Your task to perform on an android device: visit the assistant section in the google photos Image 0: 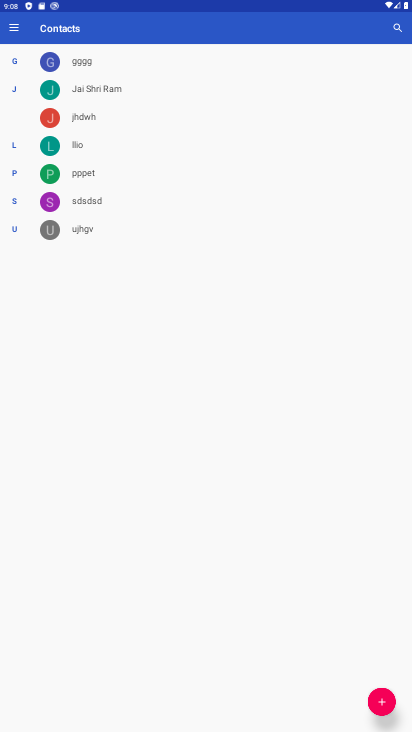
Step 0: press home button
Your task to perform on an android device: visit the assistant section in the google photos Image 1: 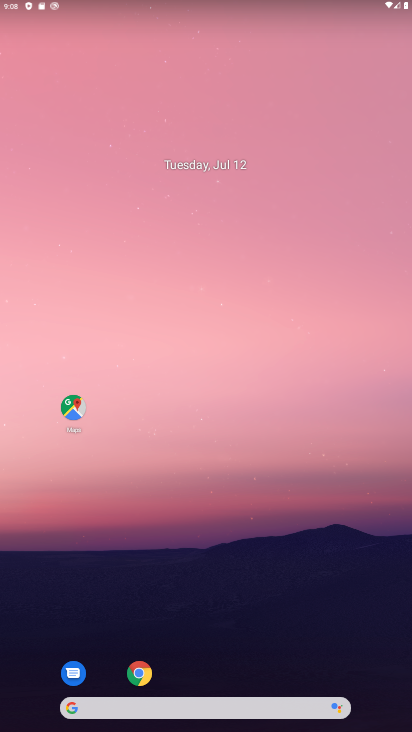
Step 1: drag from (161, 501) to (159, 170)
Your task to perform on an android device: visit the assistant section in the google photos Image 2: 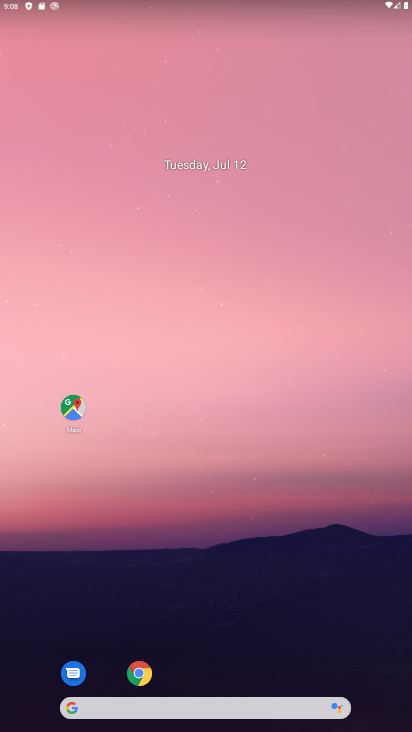
Step 2: drag from (193, 478) to (247, 38)
Your task to perform on an android device: visit the assistant section in the google photos Image 3: 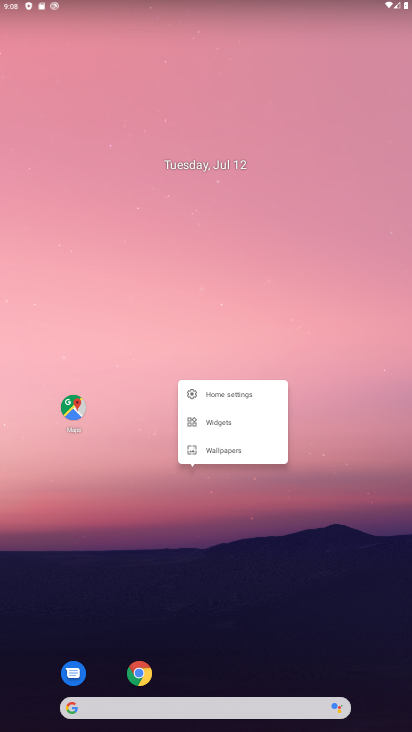
Step 3: click (187, 611)
Your task to perform on an android device: visit the assistant section in the google photos Image 4: 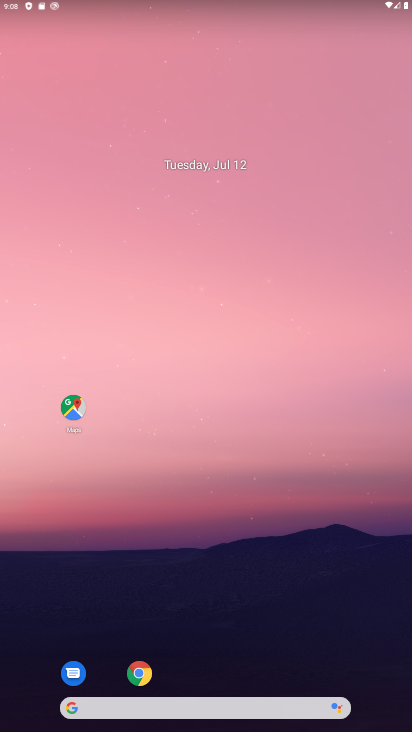
Step 4: drag from (167, 167) to (163, 41)
Your task to perform on an android device: visit the assistant section in the google photos Image 5: 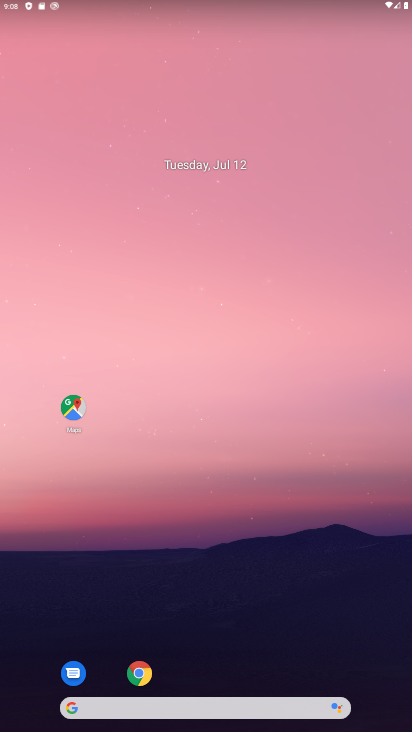
Step 5: drag from (196, 276) to (147, 40)
Your task to perform on an android device: visit the assistant section in the google photos Image 6: 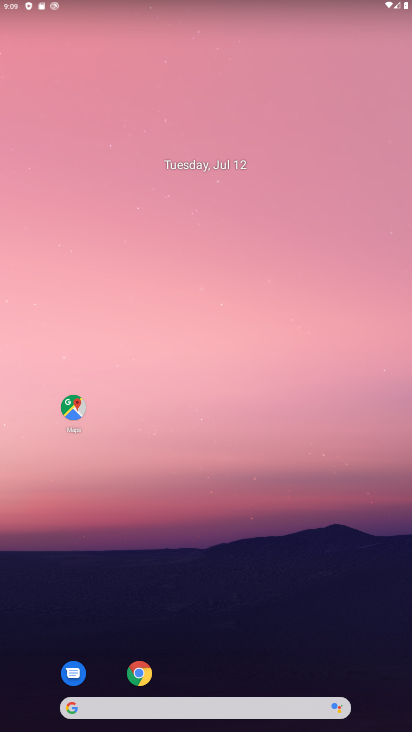
Step 6: drag from (264, 625) to (213, 144)
Your task to perform on an android device: visit the assistant section in the google photos Image 7: 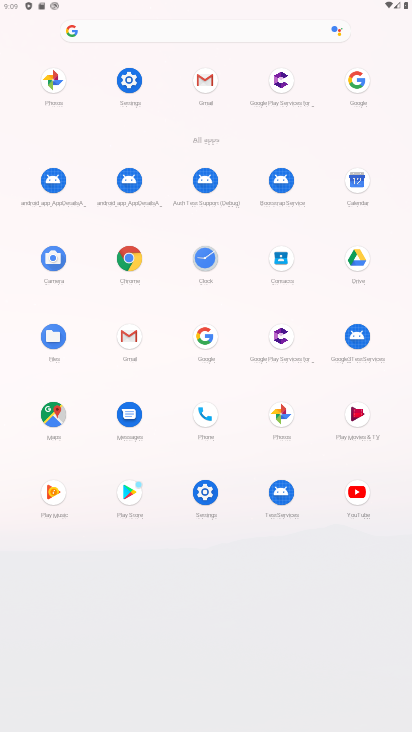
Step 7: click (284, 411)
Your task to perform on an android device: visit the assistant section in the google photos Image 8: 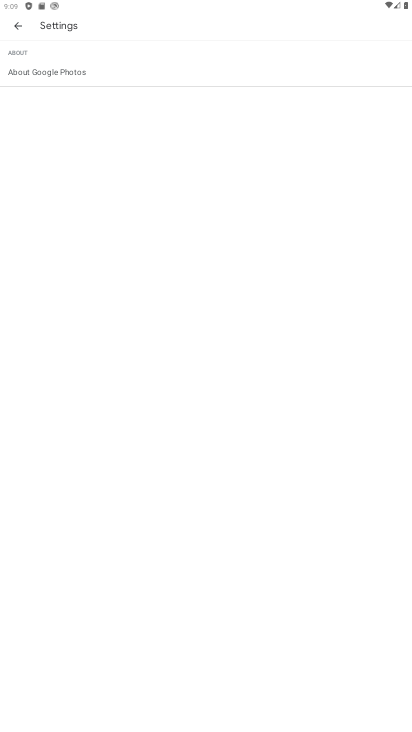
Step 8: click (21, 30)
Your task to perform on an android device: visit the assistant section in the google photos Image 9: 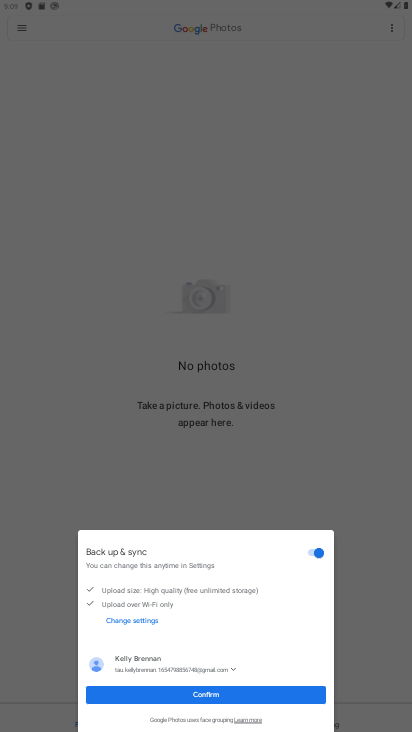
Step 9: click (224, 691)
Your task to perform on an android device: visit the assistant section in the google photos Image 10: 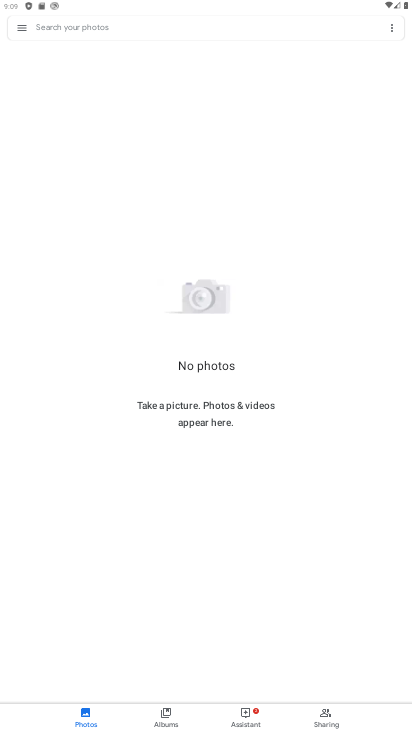
Step 10: click (249, 721)
Your task to perform on an android device: visit the assistant section in the google photos Image 11: 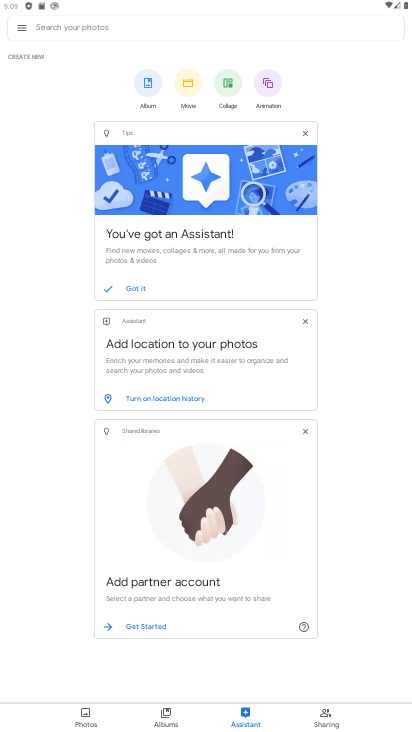
Step 11: task complete